Your task to perform on an android device: Open Chrome and go to settings Image 0: 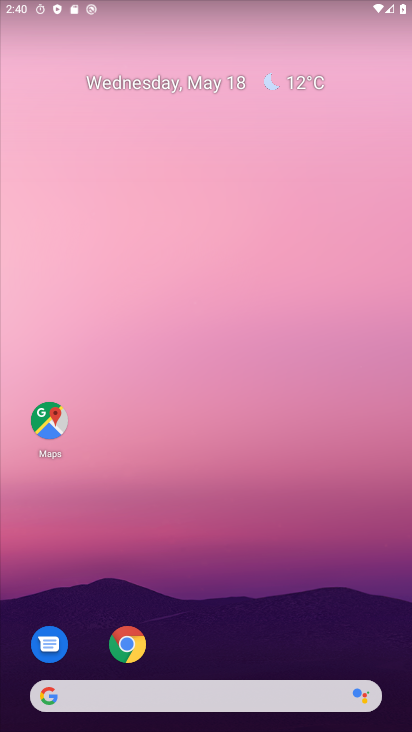
Step 0: click (122, 645)
Your task to perform on an android device: Open Chrome and go to settings Image 1: 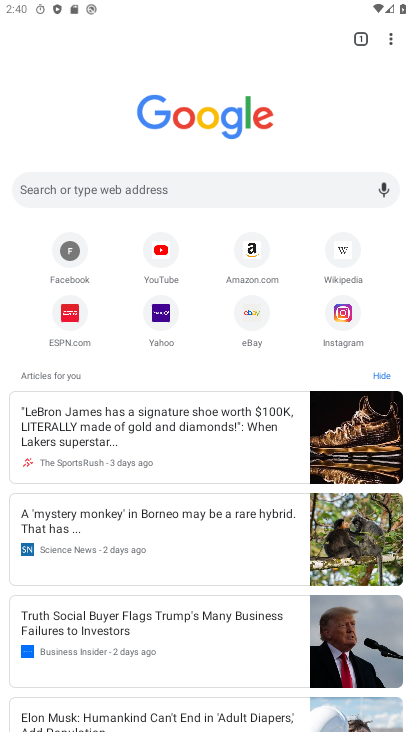
Step 1: click (391, 42)
Your task to perform on an android device: Open Chrome and go to settings Image 2: 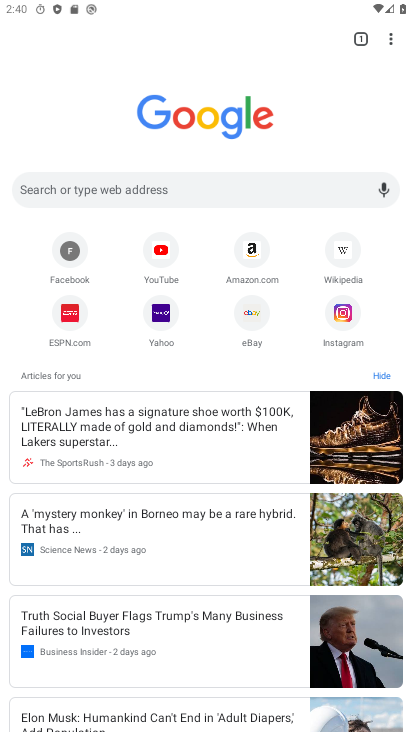
Step 2: click (391, 35)
Your task to perform on an android device: Open Chrome and go to settings Image 3: 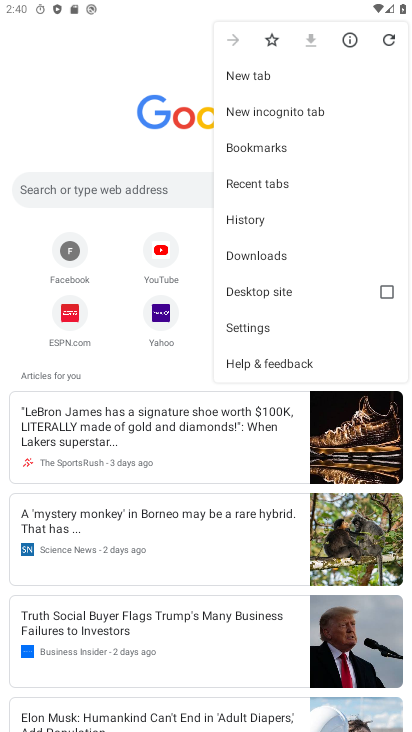
Step 3: click (239, 324)
Your task to perform on an android device: Open Chrome and go to settings Image 4: 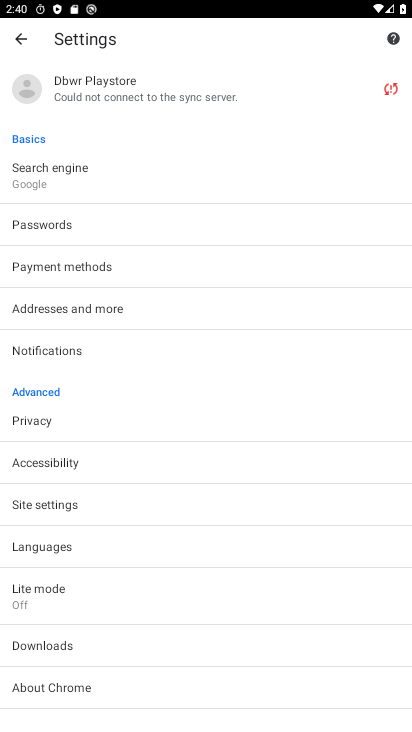
Step 4: task complete